Your task to perform on an android device: toggle pop-ups in chrome Image 0: 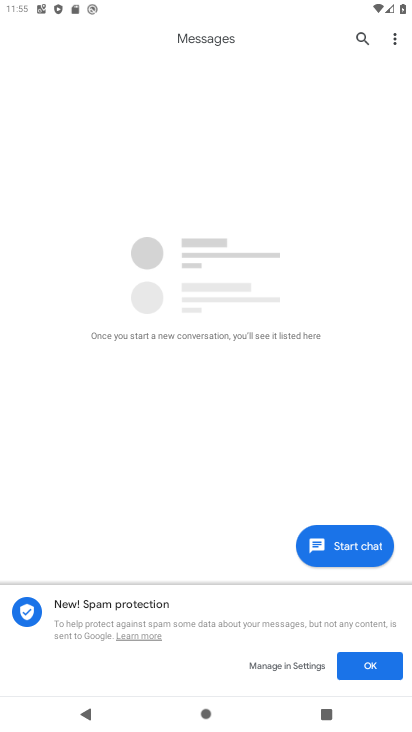
Step 0: press home button
Your task to perform on an android device: toggle pop-ups in chrome Image 1: 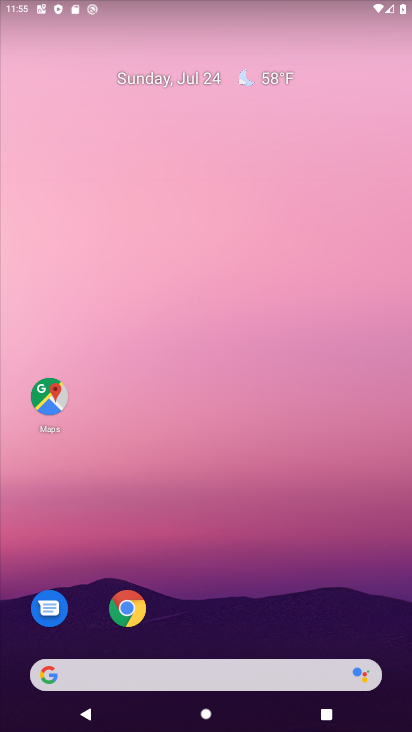
Step 1: click (133, 614)
Your task to perform on an android device: toggle pop-ups in chrome Image 2: 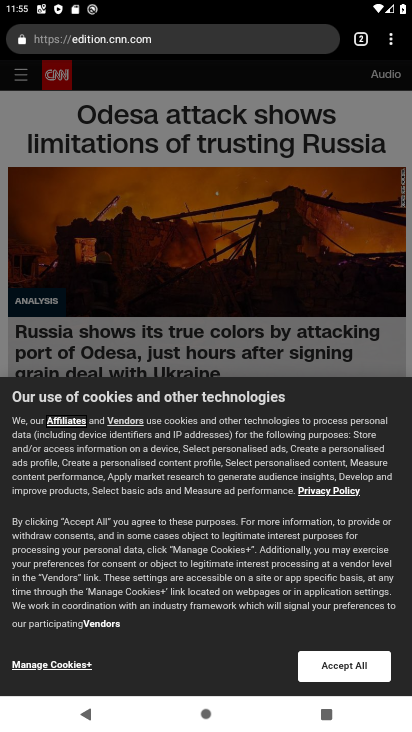
Step 2: drag from (390, 45) to (274, 433)
Your task to perform on an android device: toggle pop-ups in chrome Image 3: 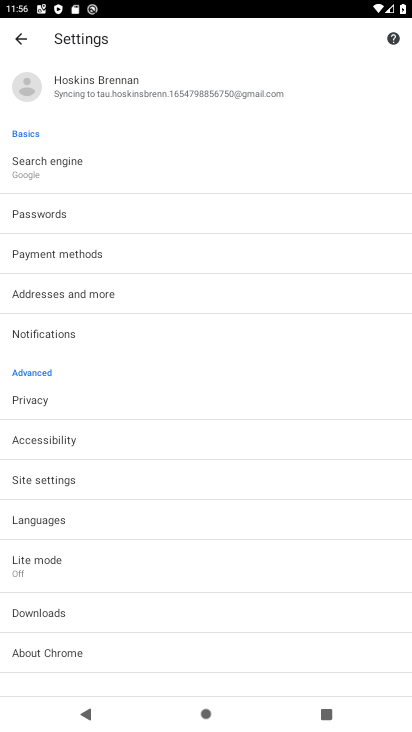
Step 3: click (76, 480)
Your task to perform on an android device: toggle pop-ups in chrome Image 4: 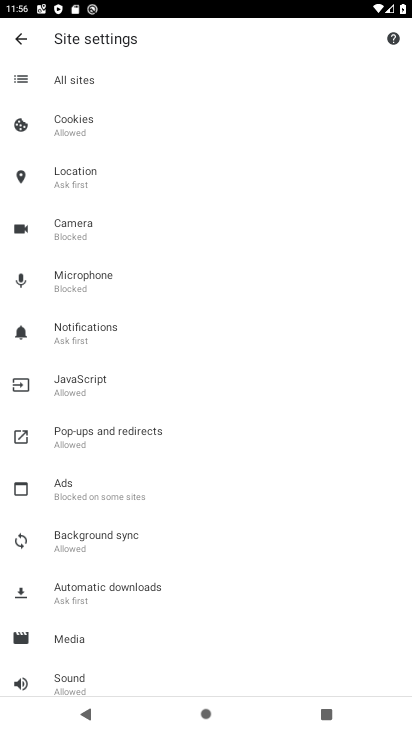
Step 4: click (116, 427)
Your task to perform on an android device: toggle pop-ups in chrome Image 5: 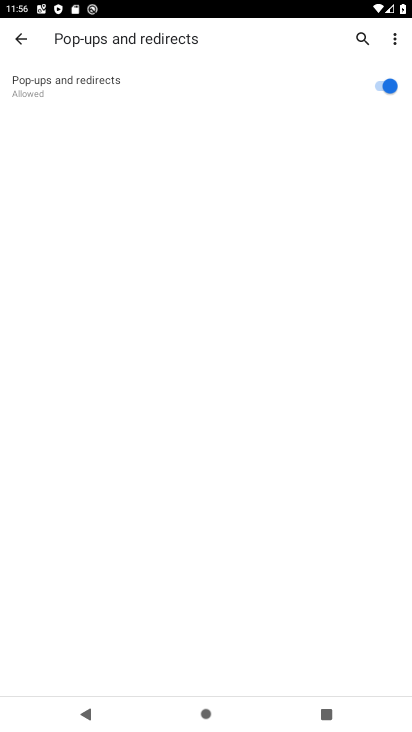
Step 5: click (388, 83)
Your task to perform on an android device: toggle pop-ups in chrome Image 6: 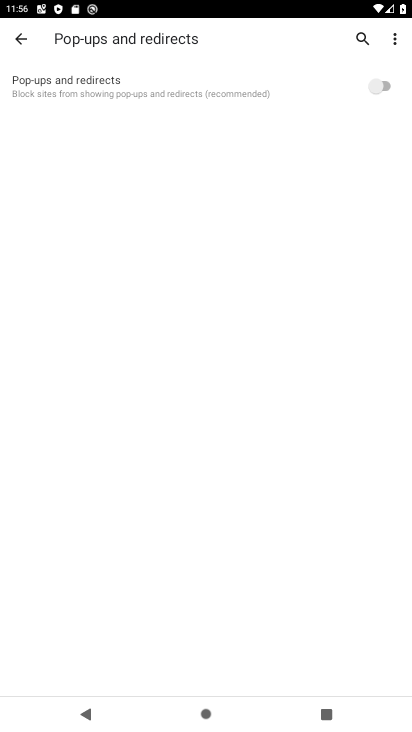
Step 6: task complete